Your task to perform on an android device: turn on improve location accuracy Image 0: 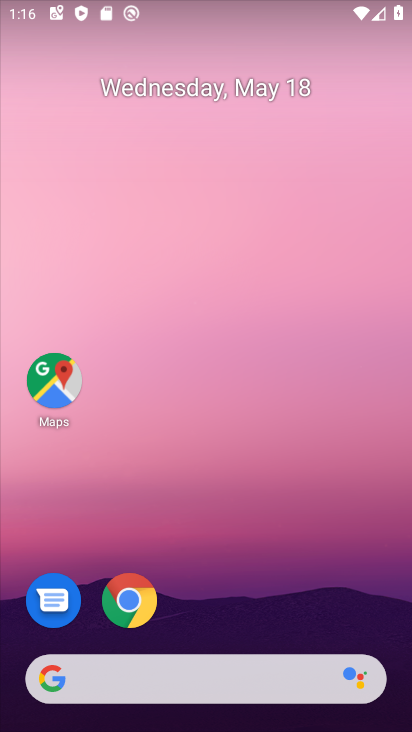
Step 0: drag from (249, 605) to (171, 103)
Your task to perform on an android device: turn on improve location accuracy Image 1: 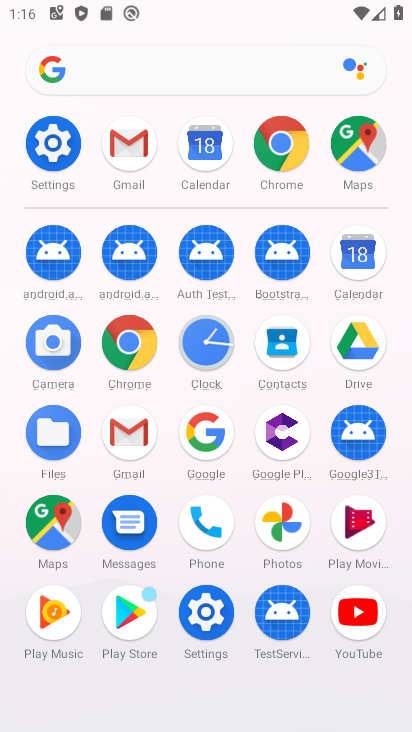
Step 1: click (205, 612)
Your task to perform on an android device: turn on improve location accuracy Image 2: 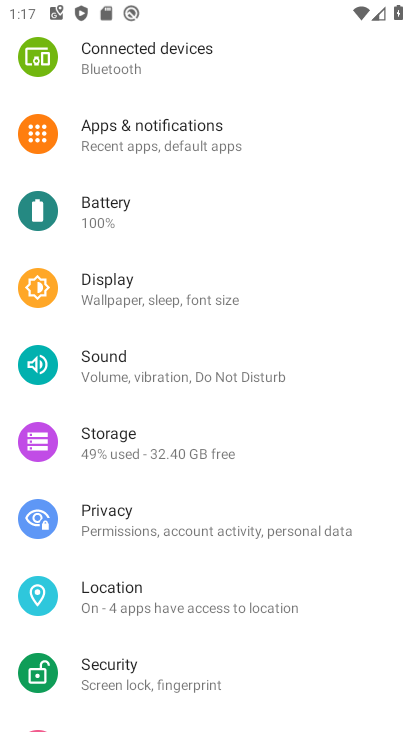
Step 2: click (122, 585)
Your task to perform on an android device: turn on improve location accuracy Image 3: 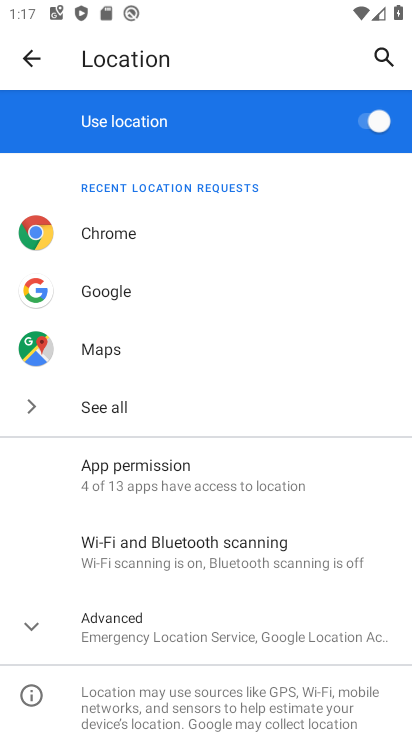
Step 3: click (201, 634)
Your task to perform on an android device: turn on improve location accuracy Image 4: 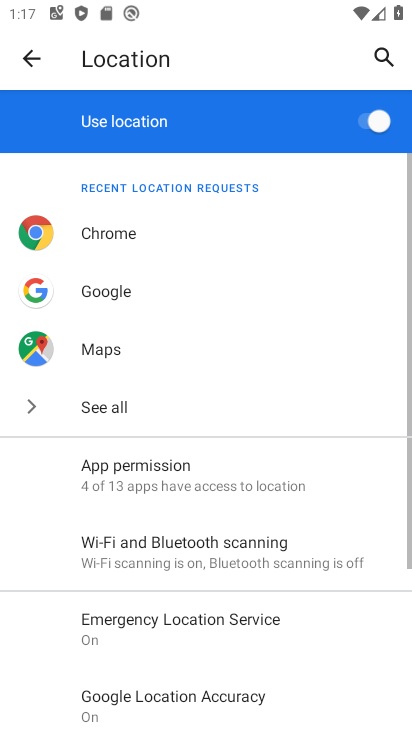
Step 4: drag from (201, 634) to (213, 500)
Your task to perform on an android device: turn on improve location accuracy Image 5: 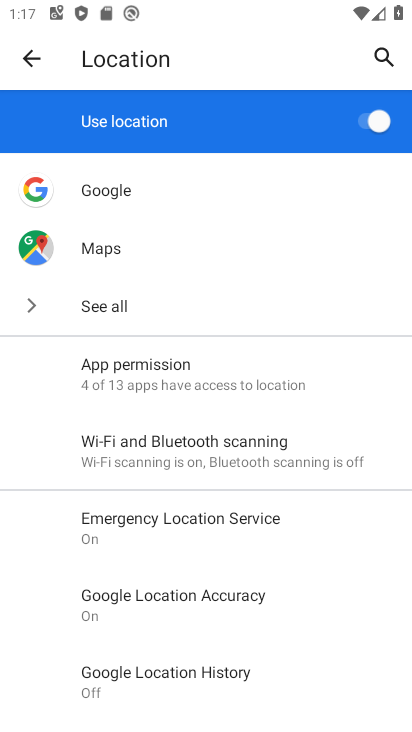
Step 5: click (198, 595)
Your task to perform on an android device: turn on improve location accuracy Image 6: 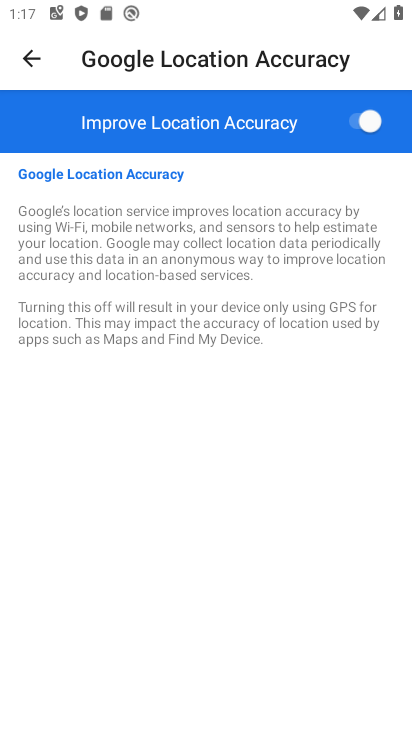
Step 6: task complete